Your task to perform on an android device: snooze an email in the gmail app Image 0: 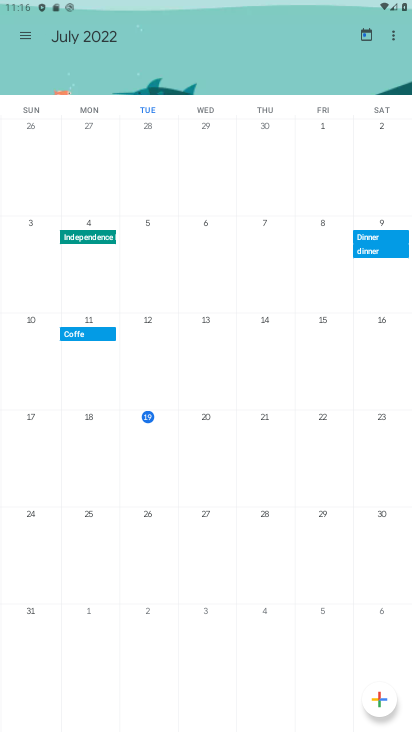
Step 0: drag from (201, 658) to (224, 70)
Your task to perform on an android device: snooze an email in the gmail app Image 1: 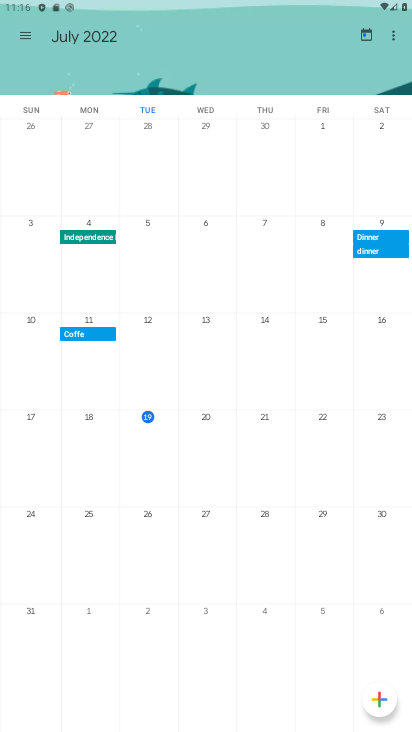
Step 1: press home button
Your task to perform on an android device: snooze an email in the gmail app Image 2: 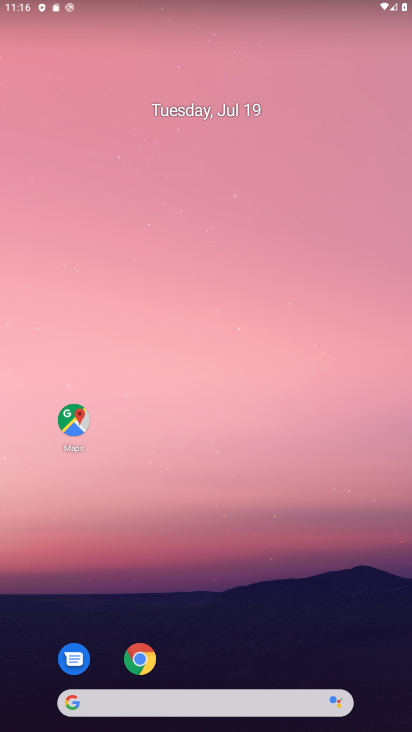
Step 2: drag from (230, 676) to (238, 15)
Your task to perform on an android device: snooze an email in the gmail app Image 3: 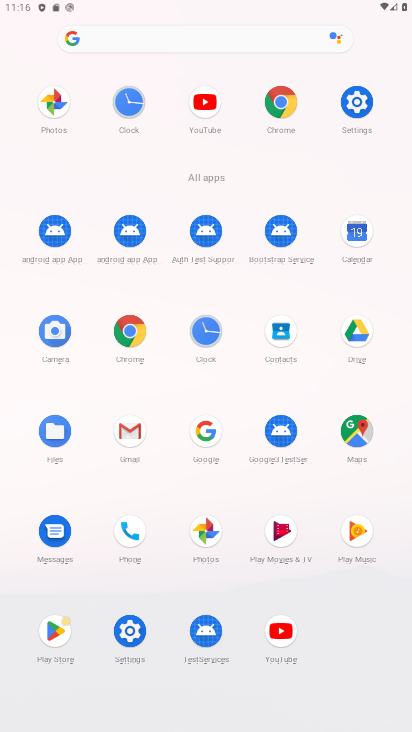
Step 3: click (127, 426)
Your task to perform on an android device: snooze an email in the gmail app Image 4: 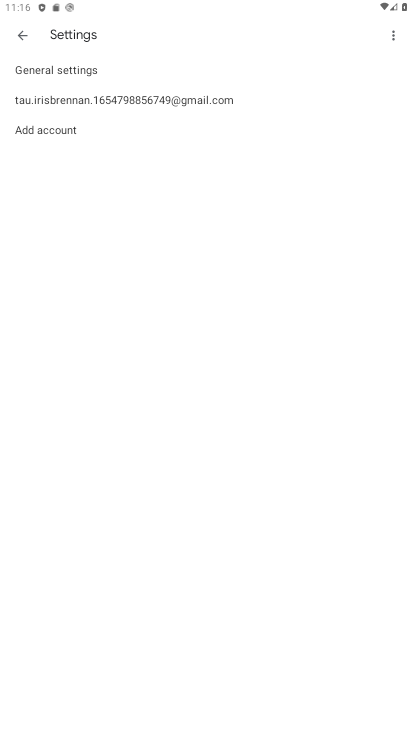
Step 4: click (24, 32)
Your task to perform on an android device: snooze an email in the gmail app Image 5: 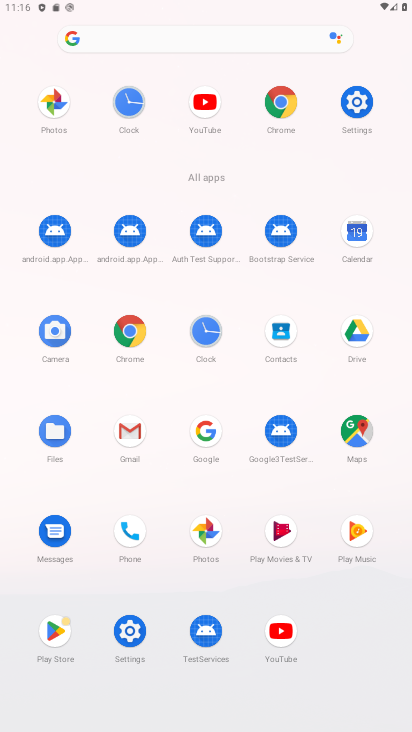
Step 5: click (131, 427)
Your task to perform on an android device: snooze an email in the gmail app Image 6: 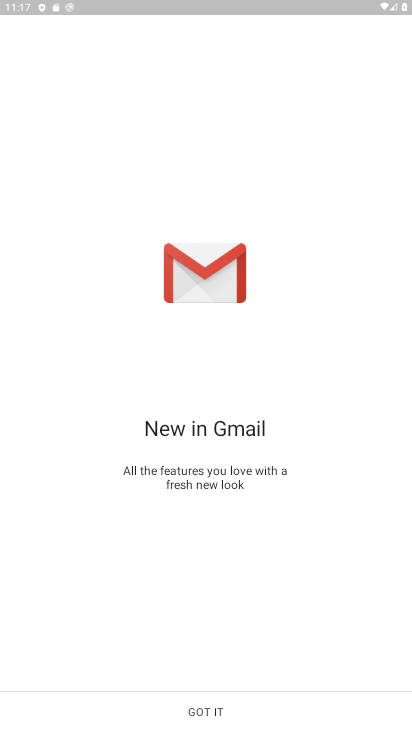
Step 6: click (207, 715)
Your task to perform on an android device: snooze an email in the gmail app Image 7: 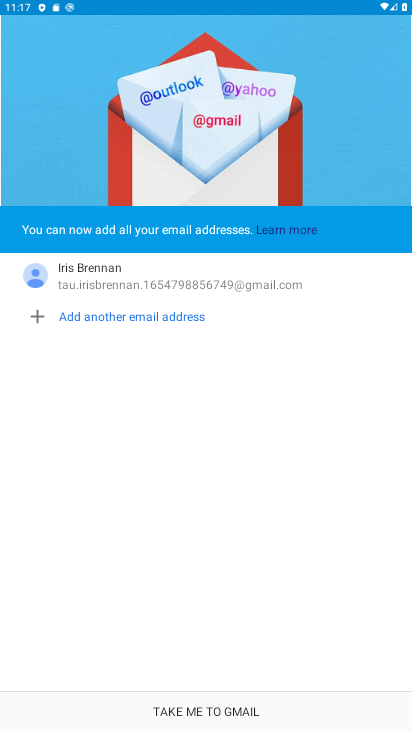
Step 7: click (205, 713)
Your task to perform on an android device: snooze an email in the gmail app Image 8: 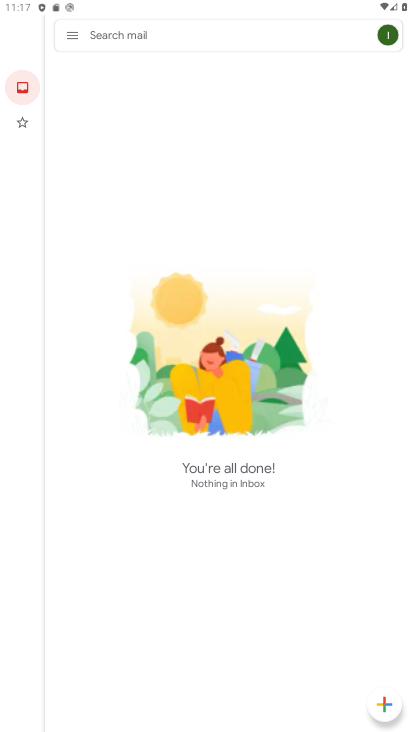
Step 8: click (73, 35)
Your task to perform on an android device: snooze an email in the gmail app Image 9: 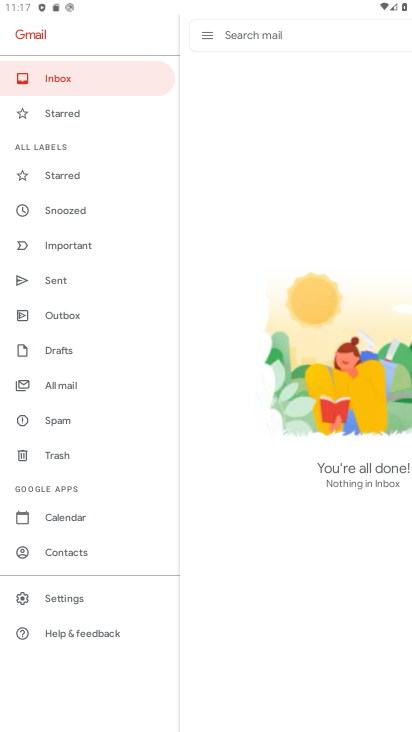
Step 9: click (77, 383)
Your task to perform on an android device: snooze an email in the gmail app Image 10: 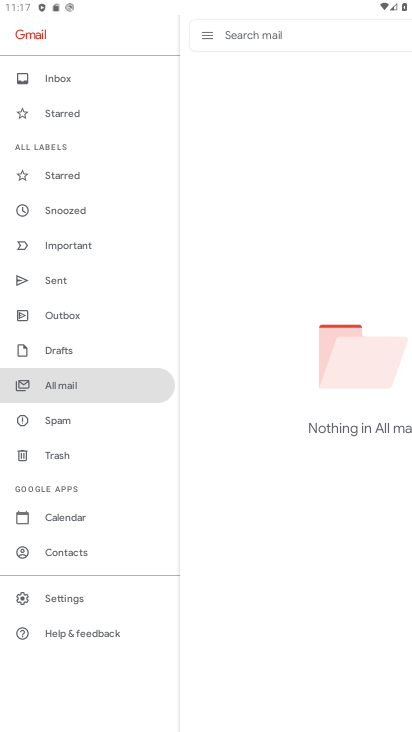
Step 10: task complete